Your task to perform on an android device: Open Chrome and go to the settings page Image 0: 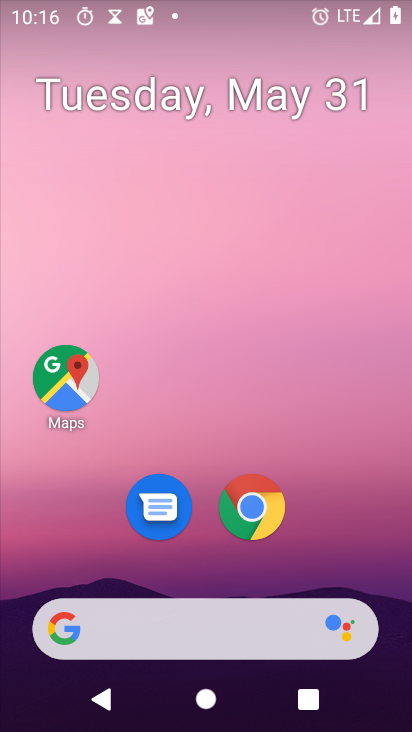
Step 0: click (240, 501)
Your task to perform on an android device: Open Chrome and go to the settings page Image 1: 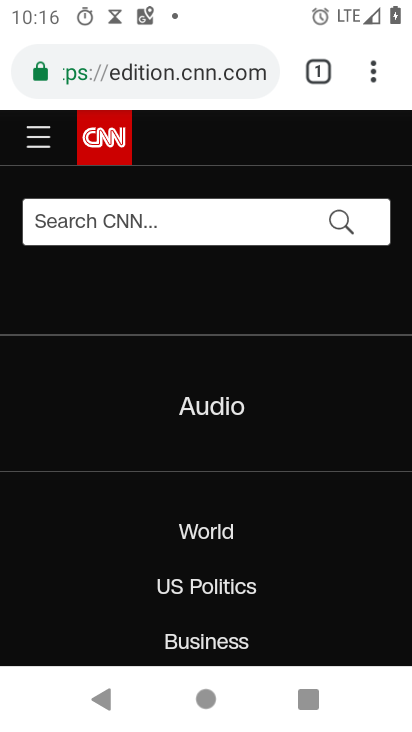
Step 1: click (367, 71)
Your task to perform on an android device: Open Chrome and go to the settings page Image 2: 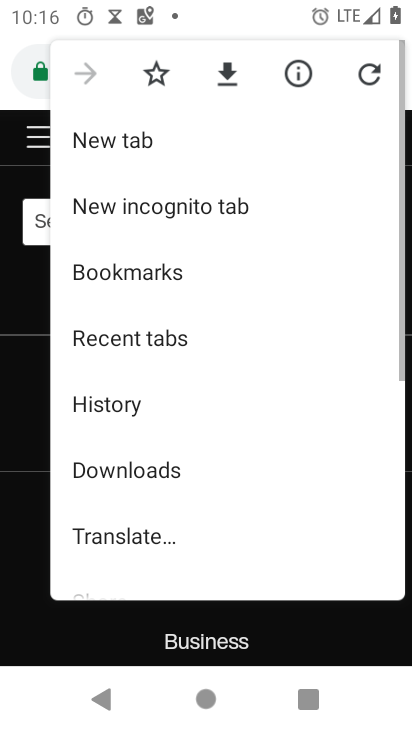
Step 2: drag from (128, 500) to (281, 28)
Your task to perform on an android device: Open Chrome and go to the settings page Image 3: 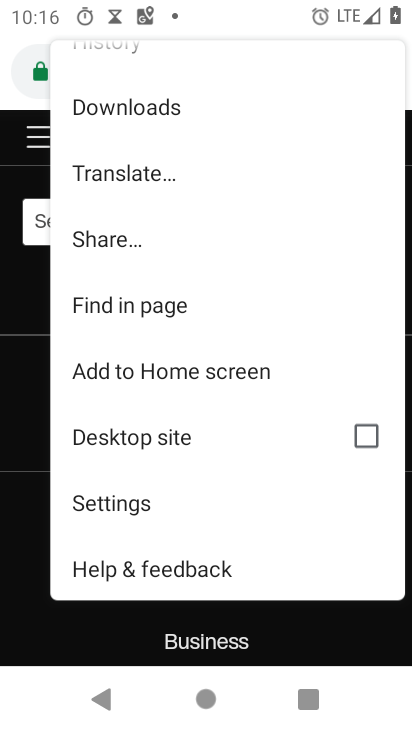
Step 3: click (121, 502)
Your task to perform on an android device: Open Chrome and go to the settings page Image 4: 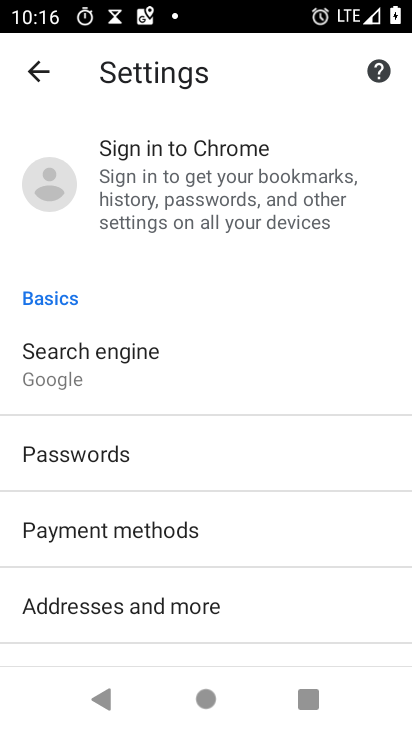
Step 4: task complete